Your task to perform on an android device: Go to accessibility settings Image 0: 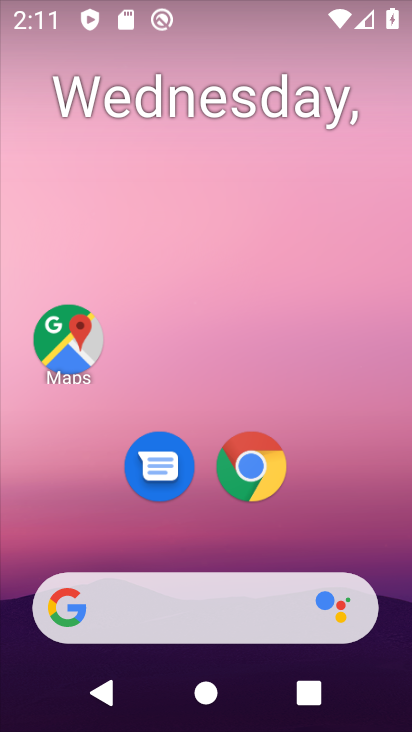
Step 0: drag from (356, 526) to (242, 8)
Your task to perform on an android device: Go to accessibility settings Image 1: 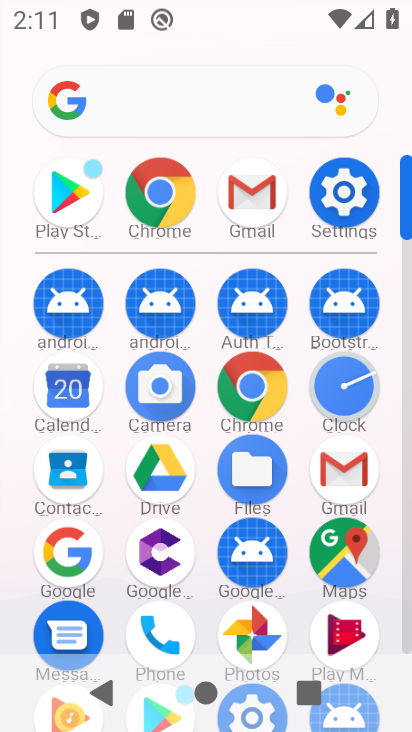
Step 1: drag from (5, 493) to (9, 156)
Your task to perform on an android device: Go to accessibility settings Image 2: 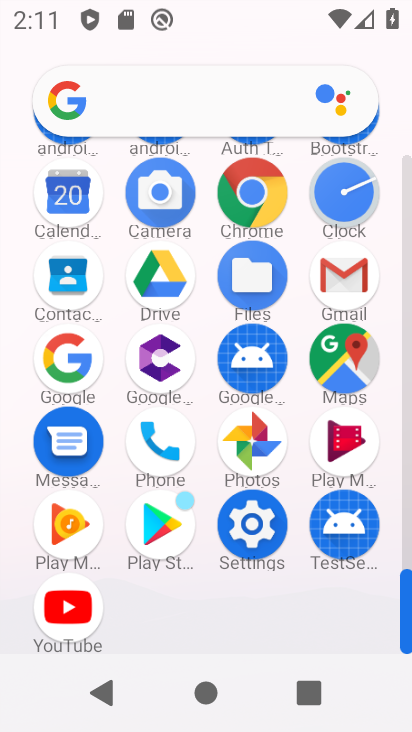
Step 2: click (254, 522)
Your task to perform on an android device: Go to accessibility settings Image 3: 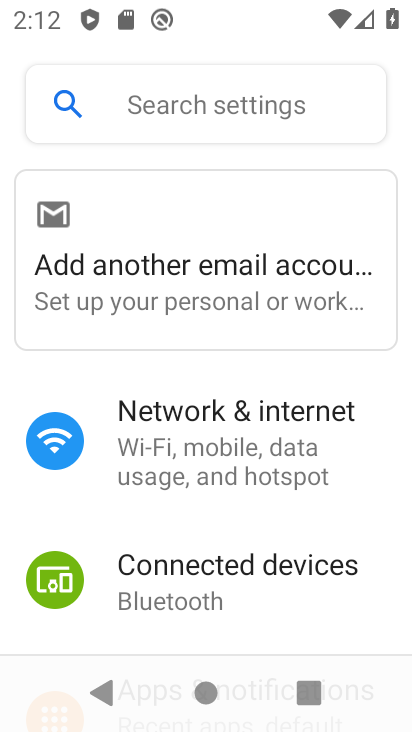
Step 3: drag from (270, 556) to (257, 194)
Your task to perform on an android device: Go to accessibility settings Image 4: 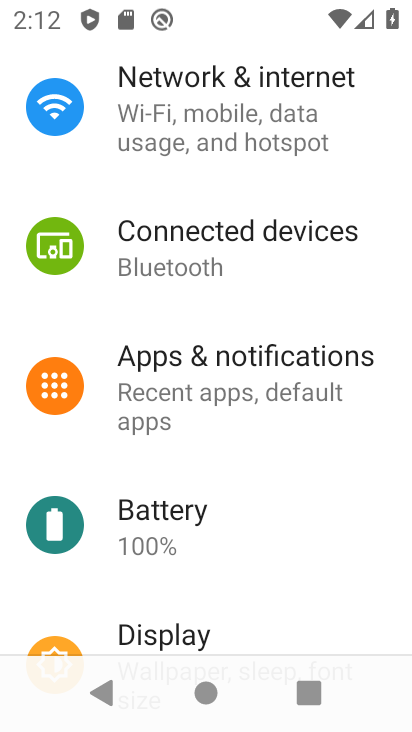
Step 4: drag from (272, 558) to (270, 220)
Your task to perform on an android device: Go to accessibility settings Image 5: 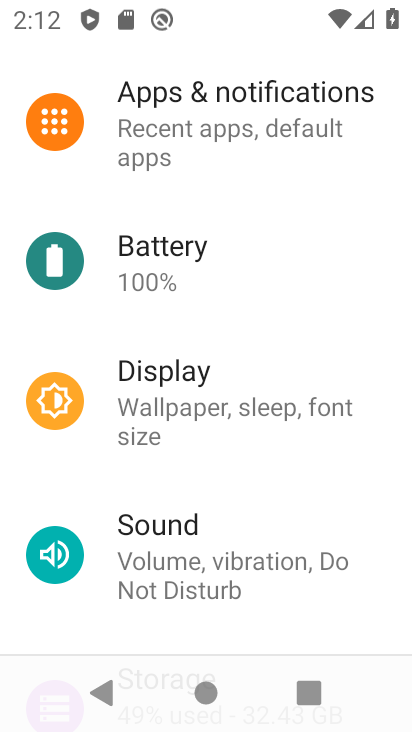
Step 5: drag from (317, 471) to (304, 117)
Your task to perform on an android device: Go to accessibility settings Image 6: 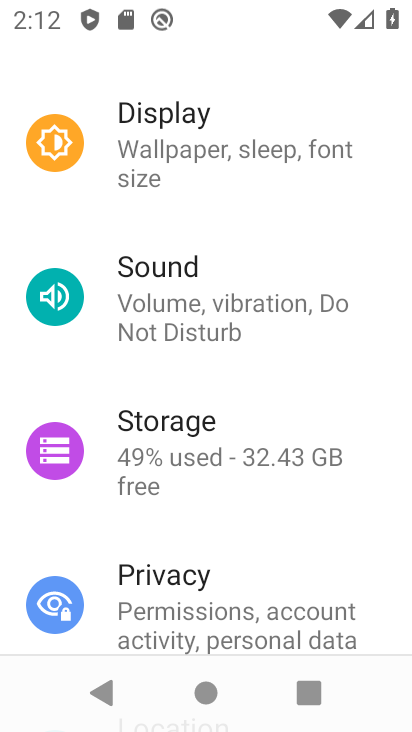
Step 6: drag from (313, 473) to (297, 135)
Your task to perform on an android device: Go to accessibility settings Image 7: 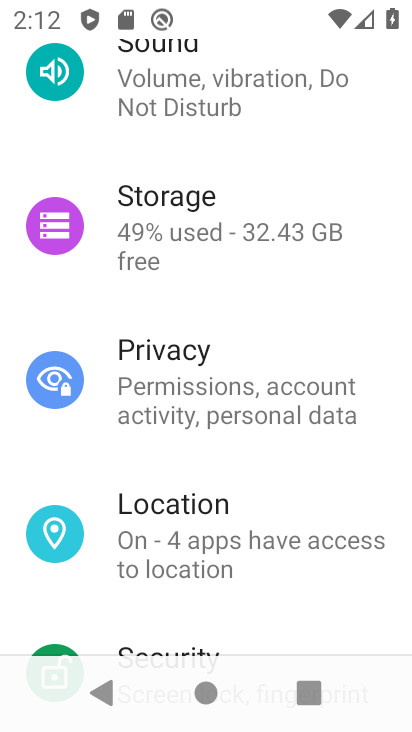
Step 7: drag from (303, 451) to (297, 153)
Your task to perform on an android device: Go to accessibility settings Image 8: 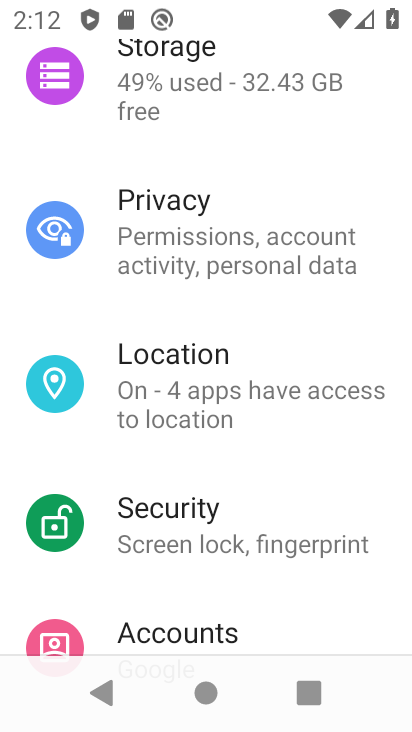
Step 8: drag from (286, 498) to (285, 136)
Your task to perform on an android device: Go to accessibility settings Image 9: 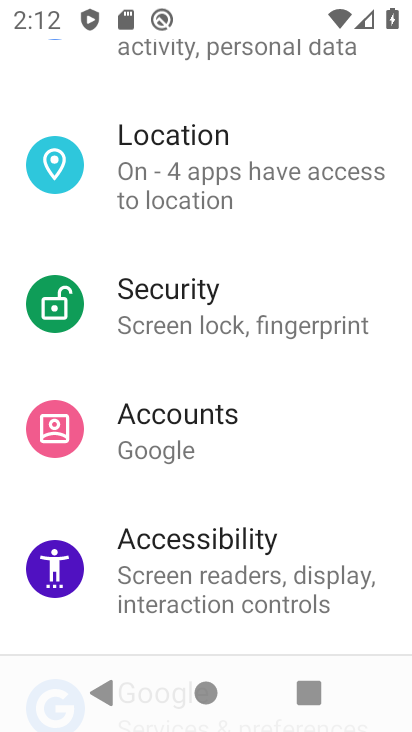
Step 9: click (265, 555)
Your task to perform on an android device: Go to accessibility settings Image 10: 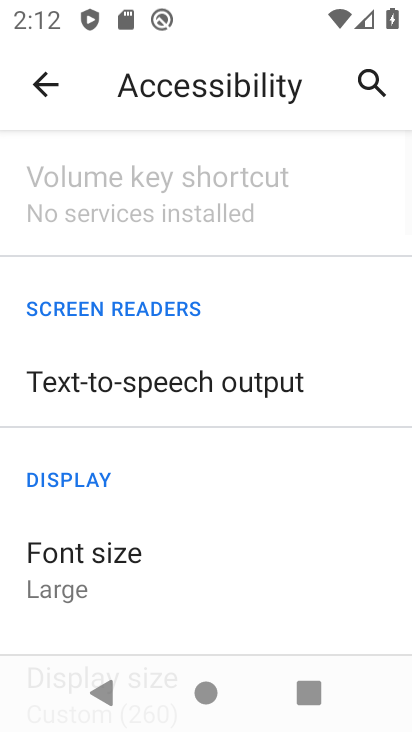
Step 10: task complete